Your task to perform on an android device: What's the weather going to be tomorrow? Image 0: 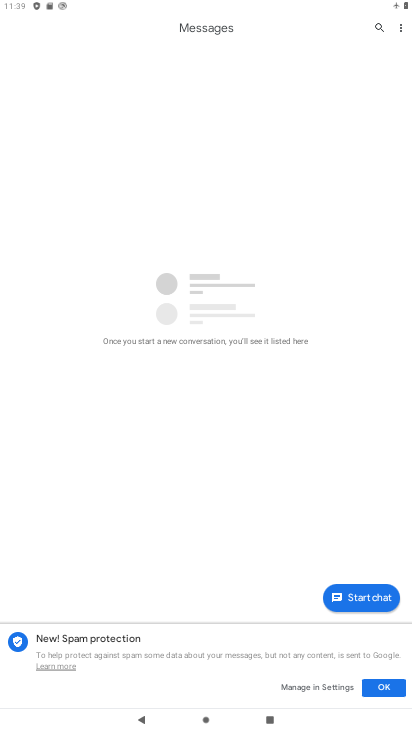
Step 0: press home button
Your task to perform on an android device: What's the weather going to be tomorrow? Image 1: 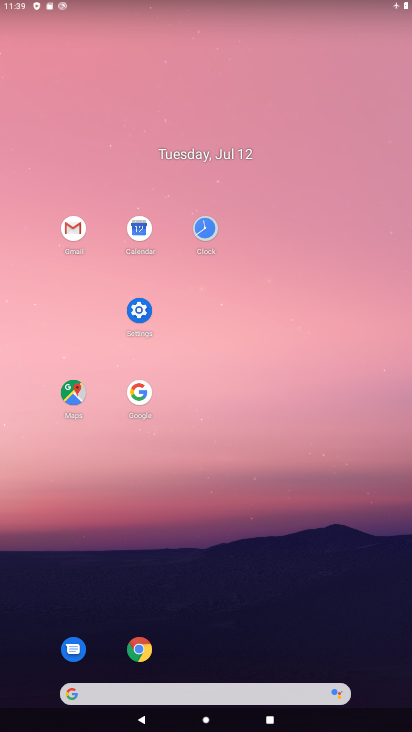
Step 1: click (141, 642)
Your task to perform on an android device: What's the weather going to be tomorrow? Image 2: 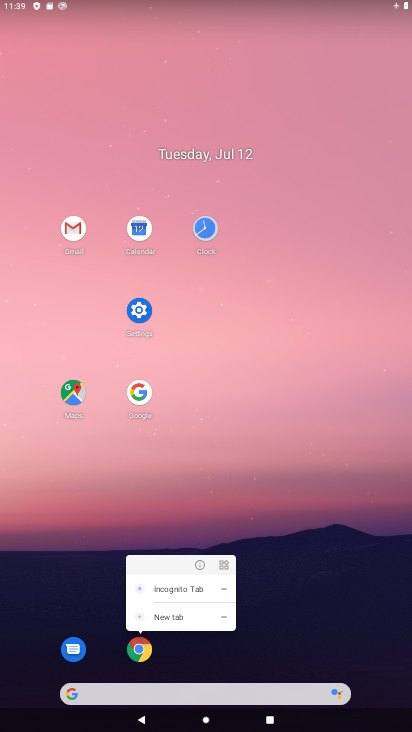
Step 2: click (141, 640)
Your task to perform on an android device: What's the weather going to be tomorrow? Image 3: 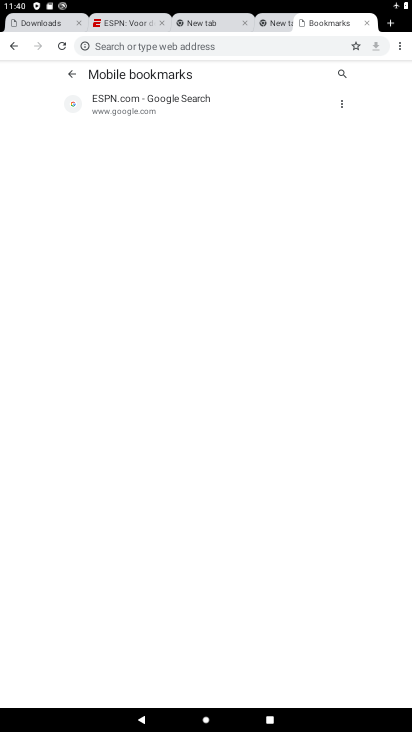
Step 3: click (390, 22)
Your task to perform on an android device: What's the weather going to be tomorrow? Image 4: 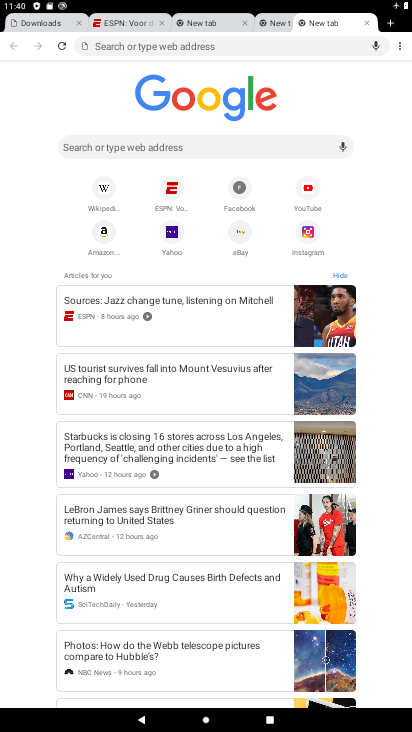
Step 4: click (104, 143)
Your task to perform on an android device: What's the weather going to be tomorrow? Image 5: 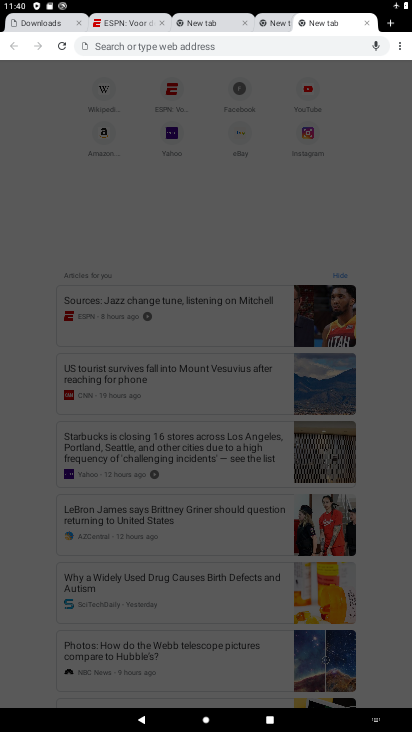
Step 5: type "weather"
Your task to perform on an android device: What's the weather going to be tomorrow? Image 6: 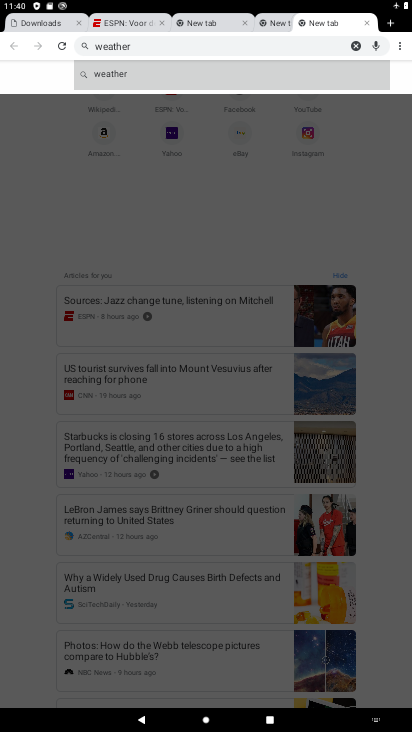
Step 6: click (120, 75)
Your task to perform on an android device: What's the weather going to be tomorrow? Image 7: 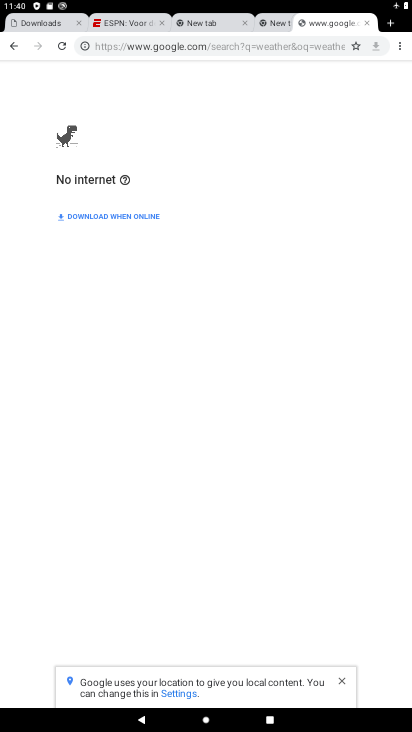
Step 7: task complete